Your task to perform on an android device: What's US dollar exchange rate against the Chinese Yuan? Image 0: 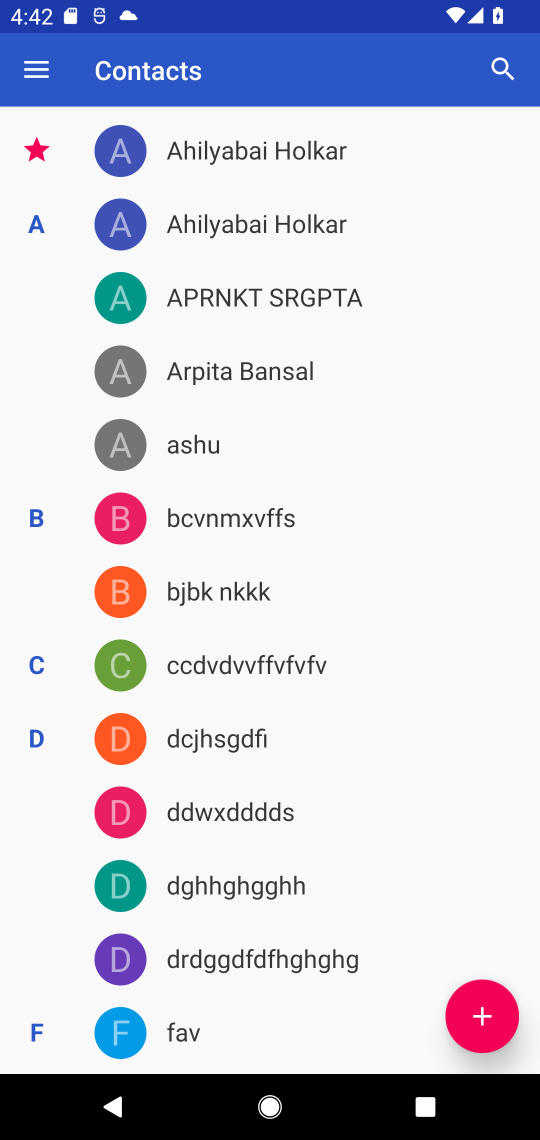
Step 0: press home button
Your task to perform on an android device: What's US dollar exchange rate against the Chinese Yuan? Image 1: 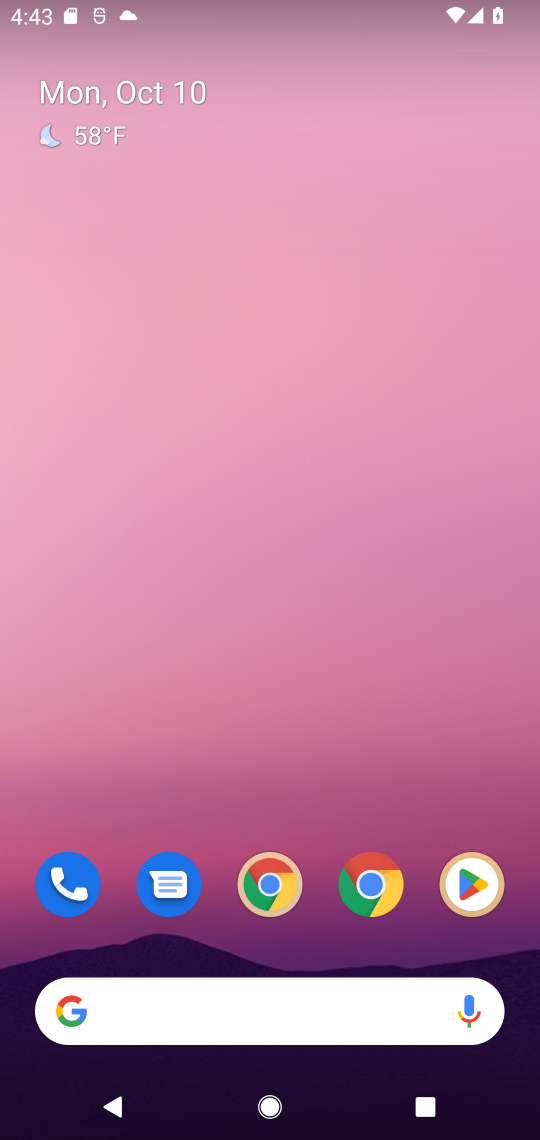
Step 1: drag from (362, 1133) to (521, 1083)
Your task to perform on an android device: What's US dollar exchange rate against the Chinese Yuan? Image 2: 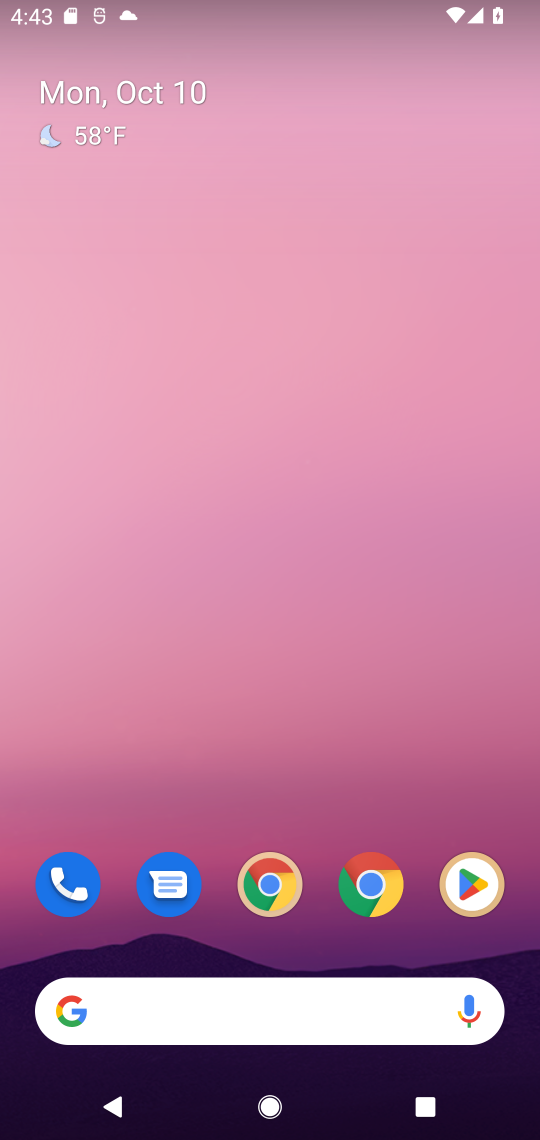
Step 2: click (379, 906)
Your task to perform on an android device: What's US dollar exchange rate against the Chinese Yuan? Image 3: 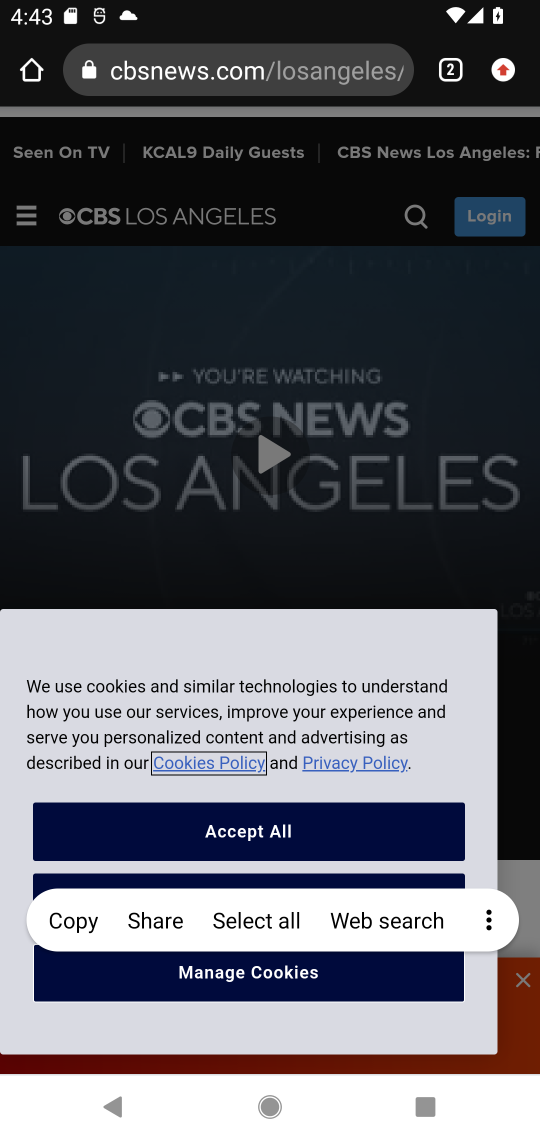
Step 3: click (295, 76)
Your task to perform on an android device: What's US dollar exchange rate against the Chinese Yuan? Image 4: 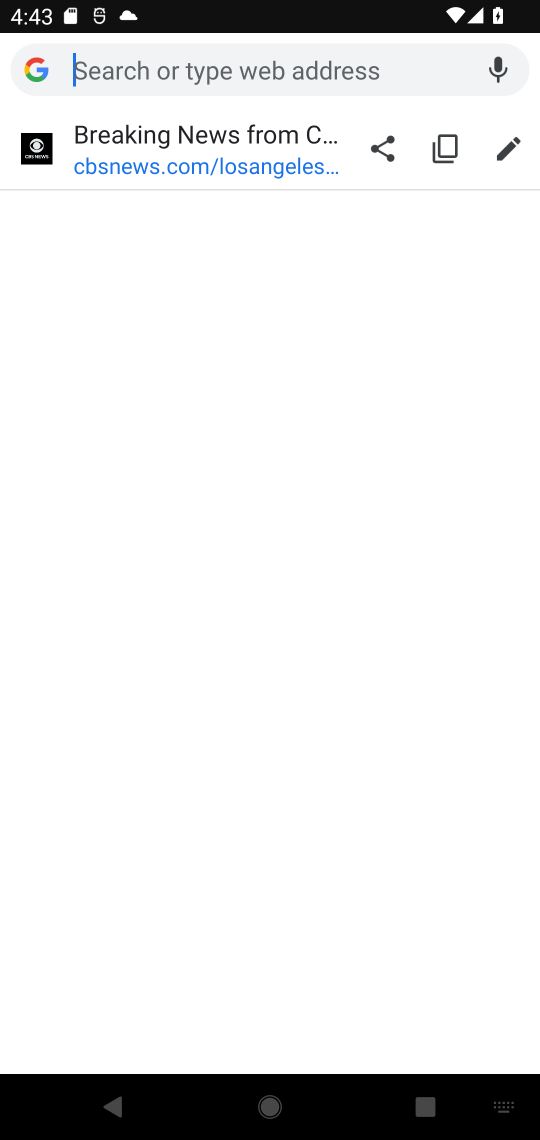
Step 4: type "What's US dollar exchange rate against the Chinese Yuan?"
Your task to perform on an android device: What's US dollar exchange rate against the Chinese Yuan? Image 5: 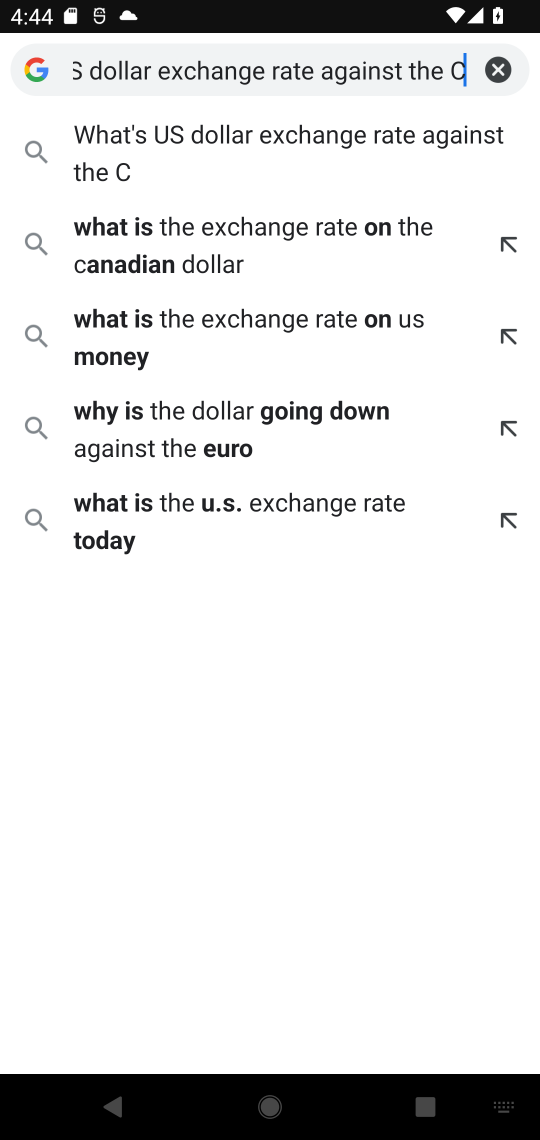
Step 5: type "hinese yuan"
Your task to perform on an android device: What's US dollar exchange rate against the Chinese Yuan? Image 6: 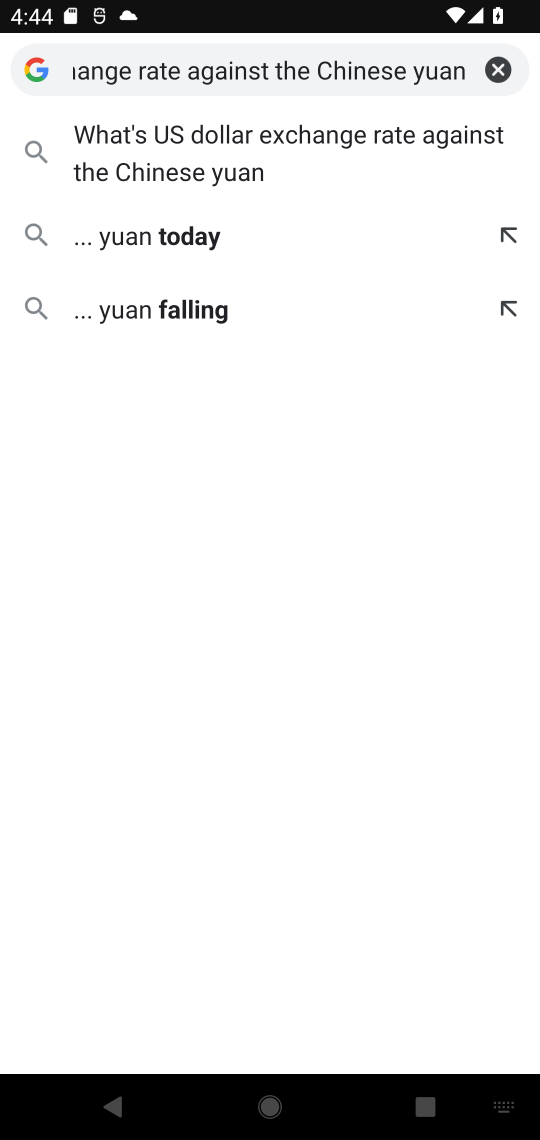
Step 6: click (213, 183)
Your task to perform on an android device: What's US dollar exchange rate against the Chinese Yuan? Image 7: 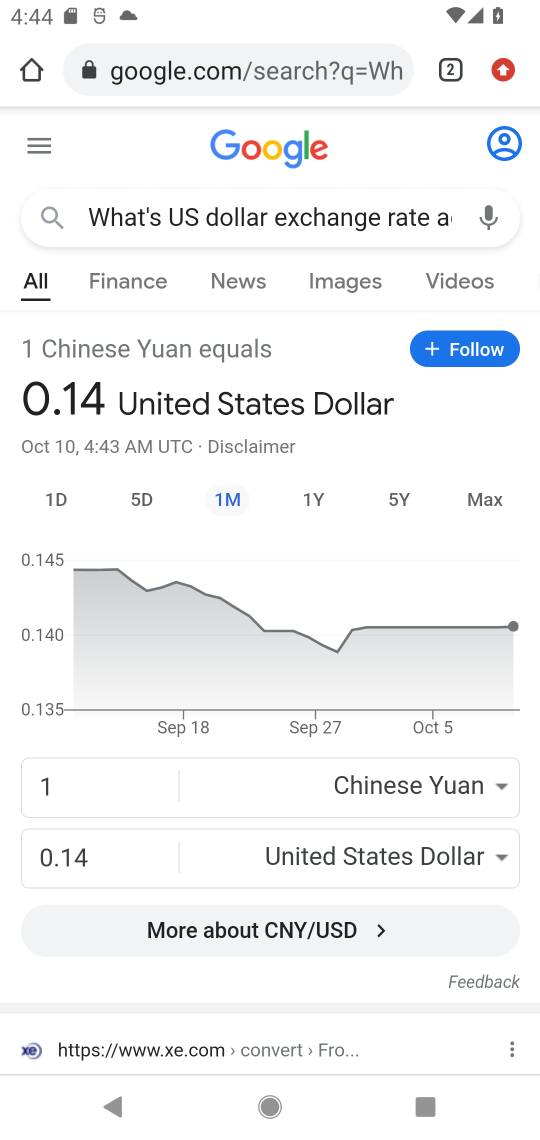
Step 7: task complete